Your task to perform on an android device: Go to Google maps Image 0: 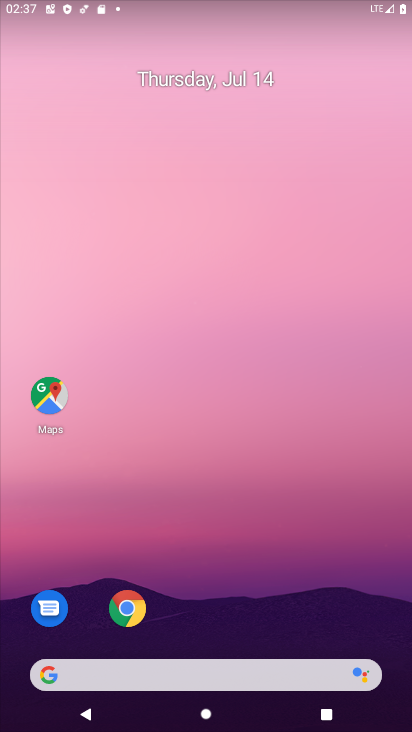
Step 0: click (33, 404)
Your task to perform on an android device: Go to Google maps Image 1: 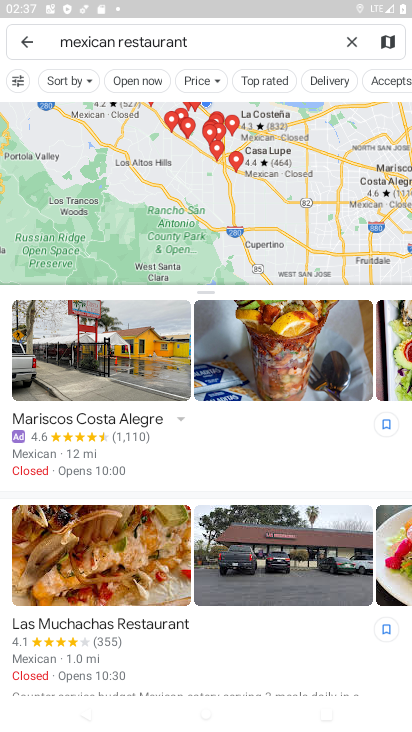
Step 1: click (349, 41)
Your task to perform on an android device: Go to Google maps Image 2: 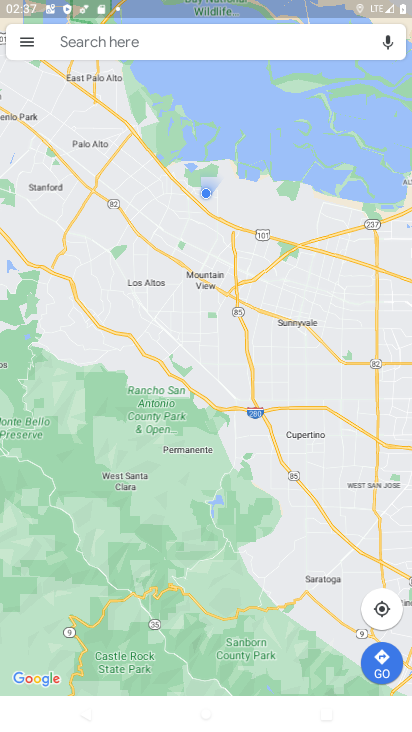
Step 2: task complete